Your task to perform on an android device: choose inbox layout in the gmail app Image 0: 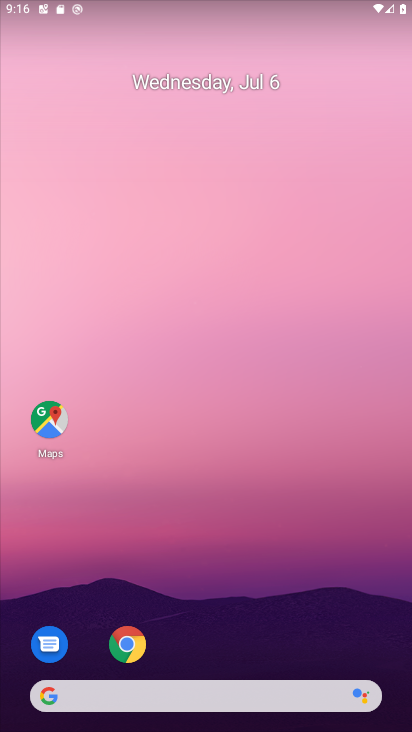
Step 0: drag from (162, 630) to (187, 106)
Your task to perform on an android device: choose inbox layout in the gmail app Image 1: 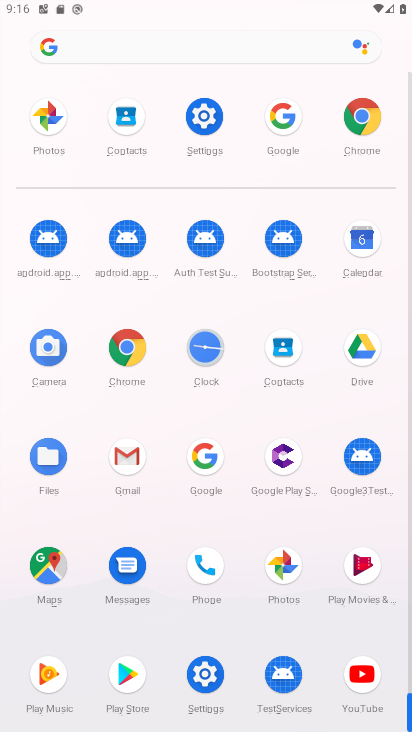
Step 1: drag from (231, 564) to (226, 229)
Your task to perform on an android device: choose inbox layout in the gmail app Image 2: 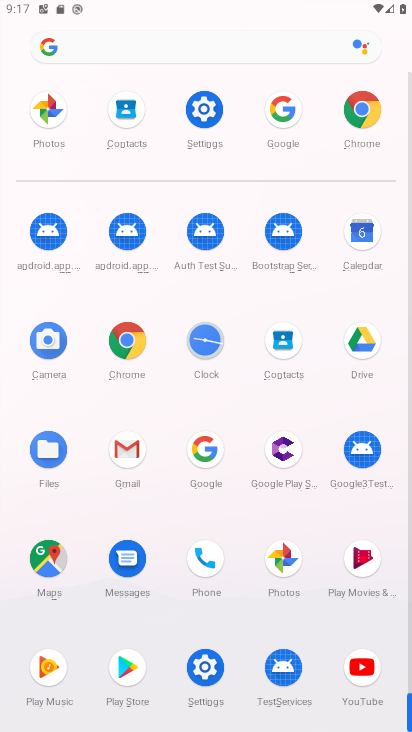
Step 2: click (129, 469)
Your task to perform on an android device: choose inbox layout in the gmail app Image 3: 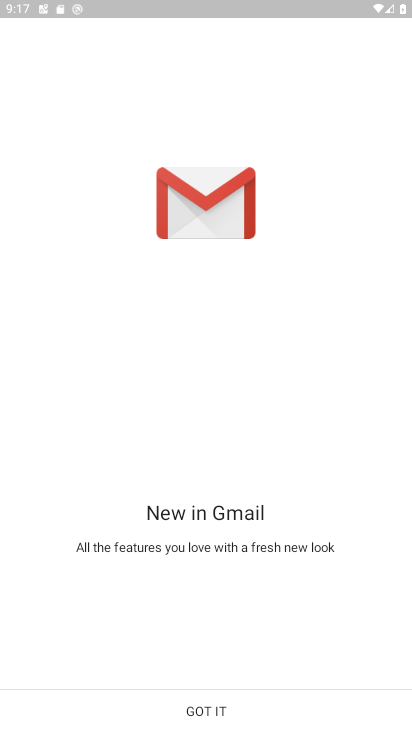
Step 3: click (215, 706)
Your task to perform on an android device: choose inbox layout in the gmail app Image 4: 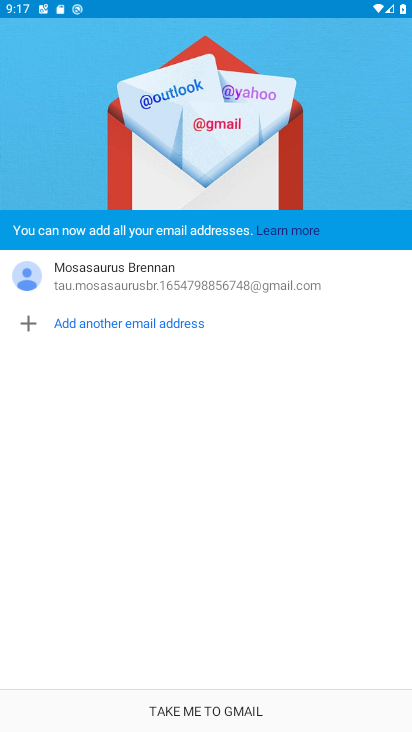
Step 4: click (218, 715)
Your task to perform on an android device: choose inbox layout in the gmail app Image 5: 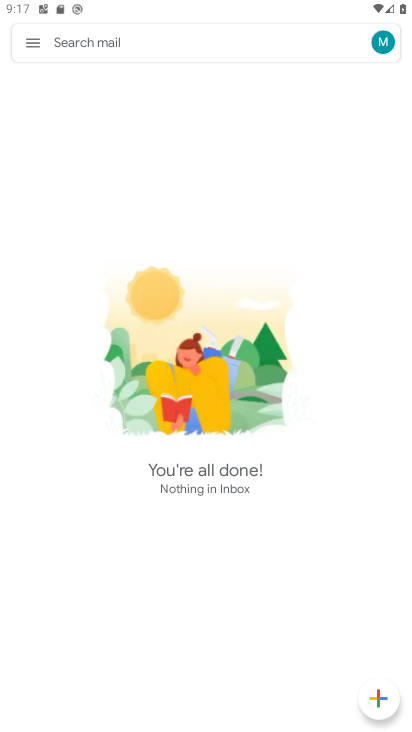
Step 5: task complete